Your task to perform on an android device: Go to Wikipedia Image 0: 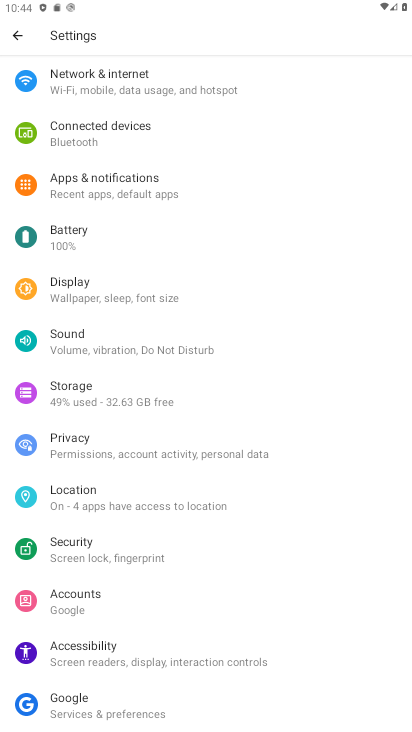
Step 0: press home button
Your task to perform on an android device: Go to Wikipedia Image 1: 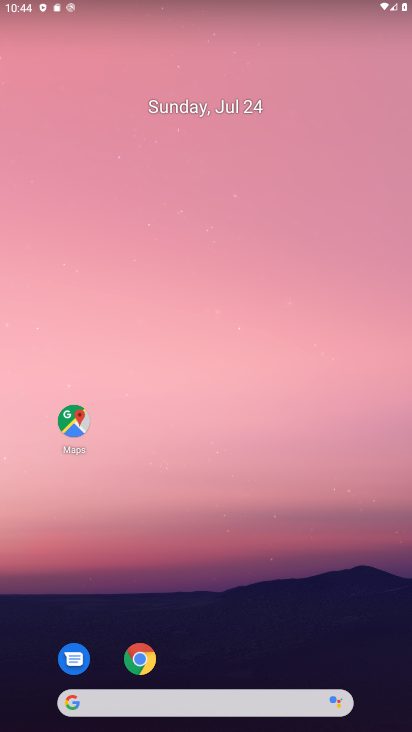
Step 1: click (132, 668)
Your task to perform on an android device: Go to Wikipedia Image 2: 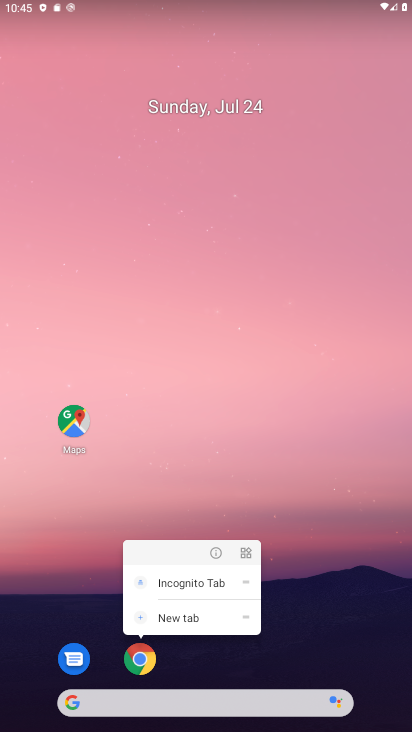
Step 2: click (136, 666)
Your task to perform on an android device: Go to Wikipedia Image 3: 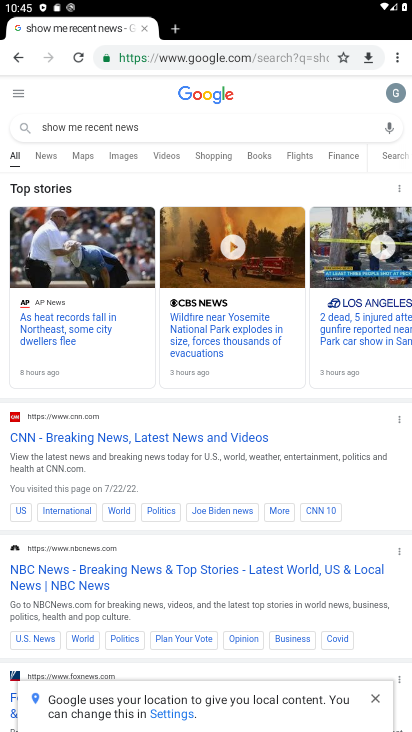
Step 3: click (194, 50)
Your task to perform on an android device: Go to Wikipedia Image 4: 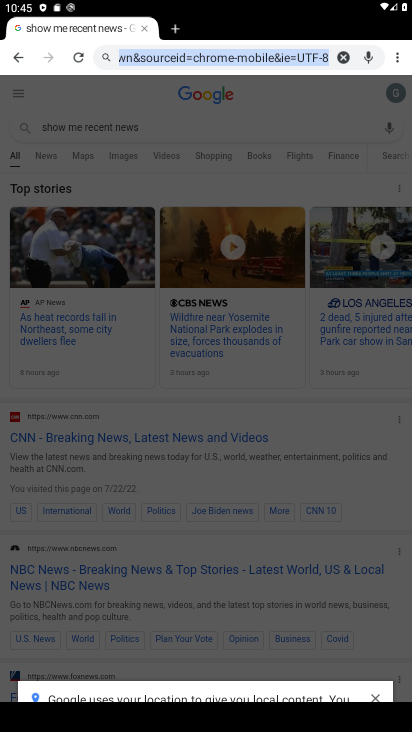
Step 4: type "Wikipedia"
Your task to perform on an android device: Go to Wikipedia Image 5: 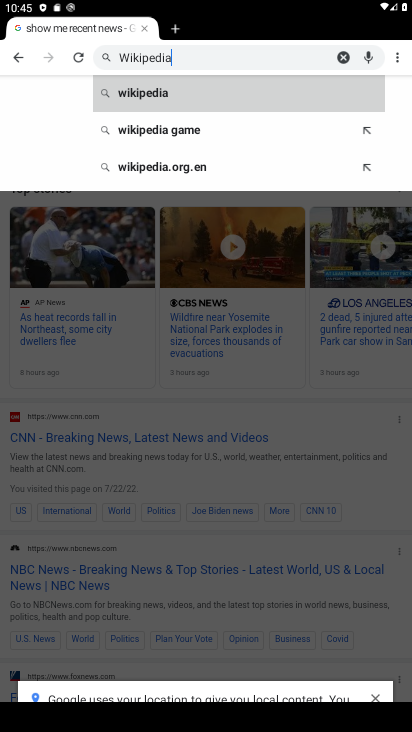
Step 5: type ""
Your task to perform on an android device: Go to Wikipedia Image 6: 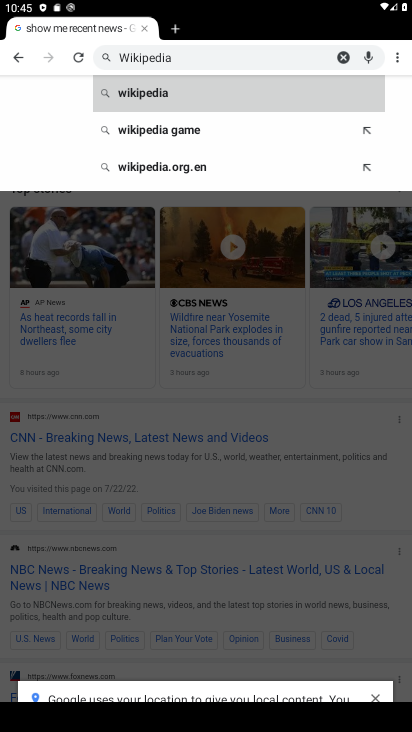
Step 6: click (215, 96)
Your task to perform on an android device: Go to Wikipedia Image 7: 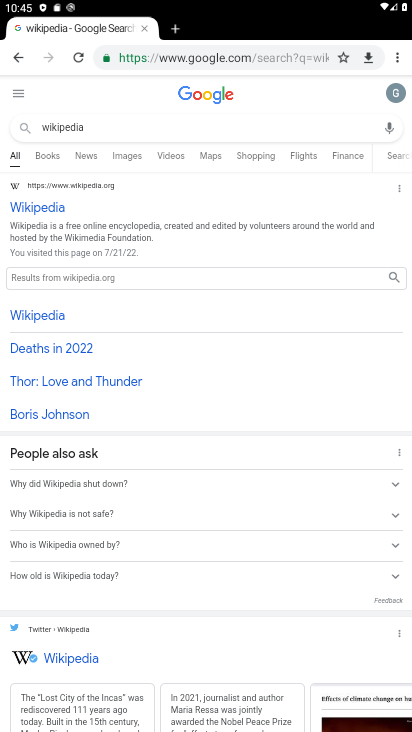
Step 7: click (32, 202)
Your task to perform on an android device: Go to Wikipedia Image 8: 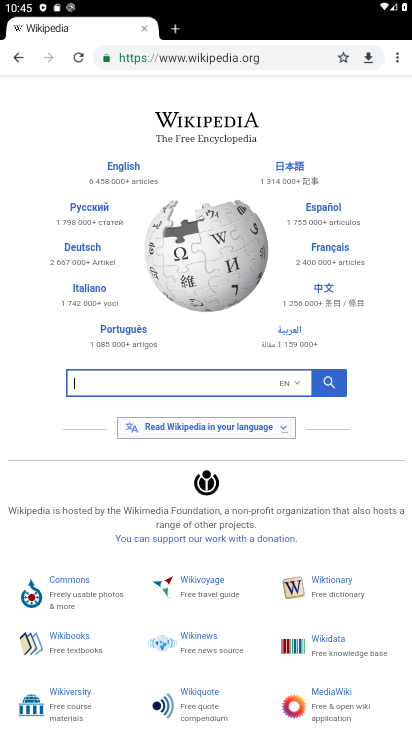
Step 8: task complete